Your task to perform on an android device: turn off location Image 0: 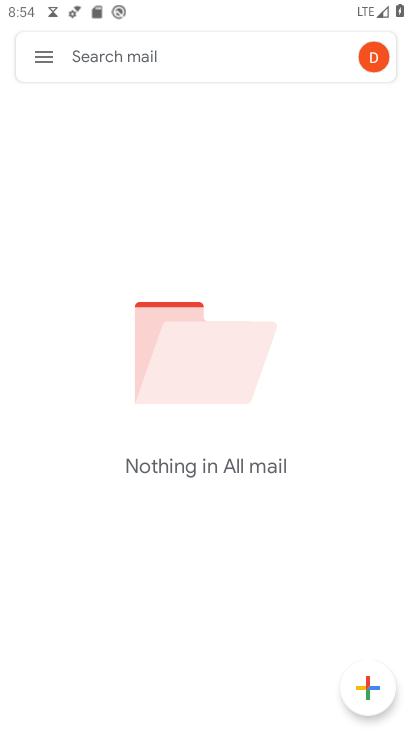
Step 0: press home button
Your task to perform on an android device: turn off location Image 1: 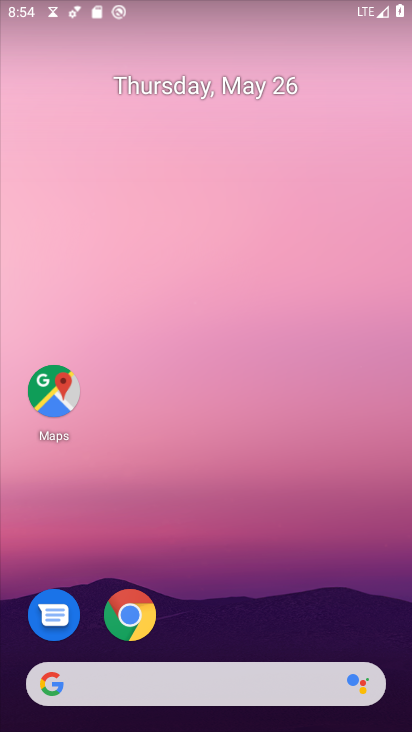
Step 1: drag from (261, 605) to (272, 246)
Your task to perform on an android device: turn off location Image 2: 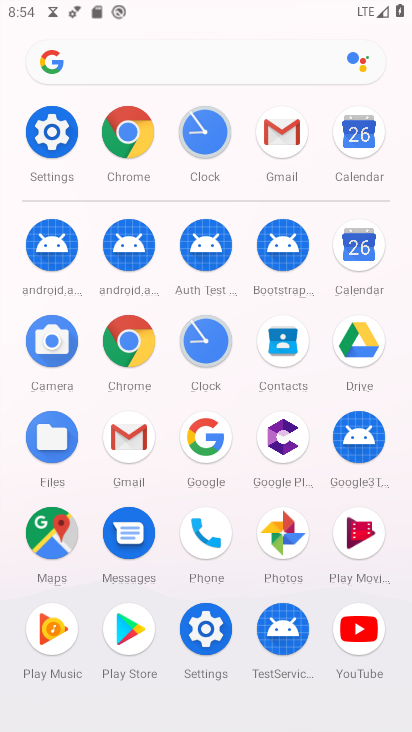
Step 2: click (61, 122)
Your task to perform on an android device: turn off location Image 3: 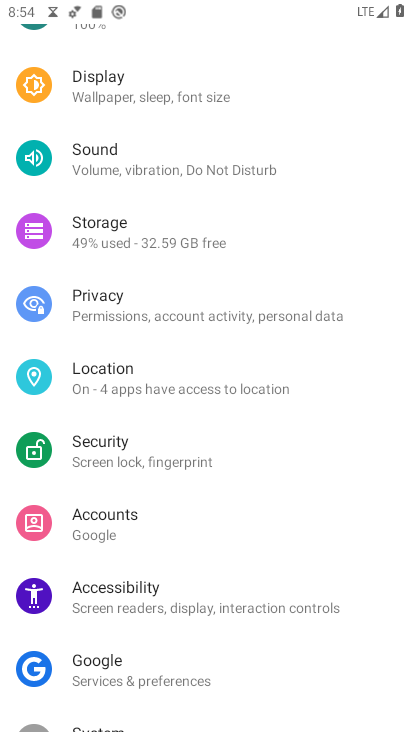
Step 3: click (127, 386)
Your task to perform on an android device: turn off location Image 4: 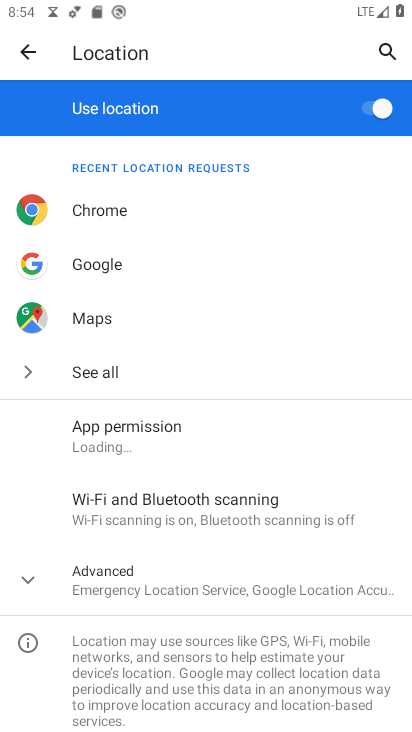
Step 4: click (375, 115)
Your task to perform on an android device: turn off location Image 5: 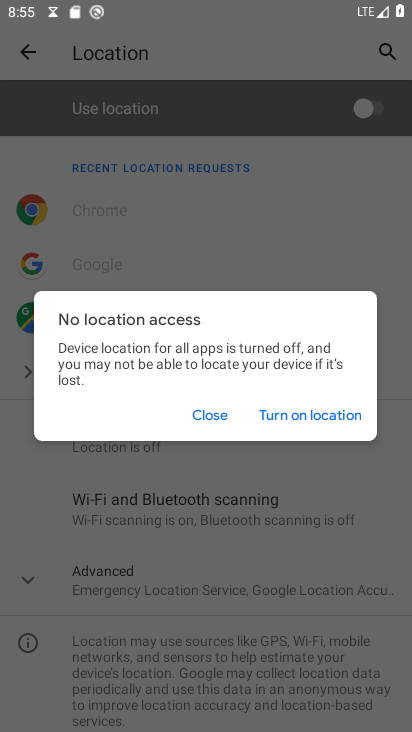
Step 5: click (202, 419)
Your task to perform on an android device: turn off location Image 6: 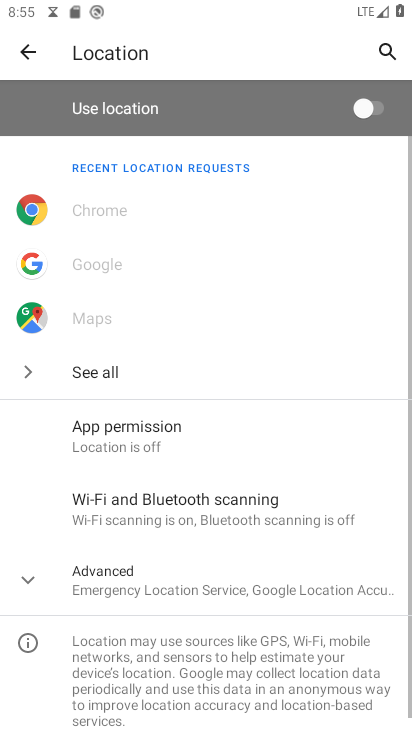
Step 6: task complete